Your task to perform on an android device: Open settings on Google Maps Image 0: 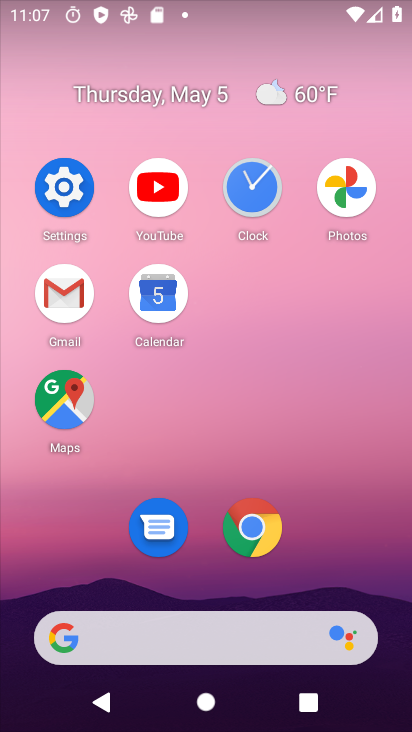
Step 0: click (54, 420)
Your task to perform on an android device: Open settings on Google Maps Image 1: 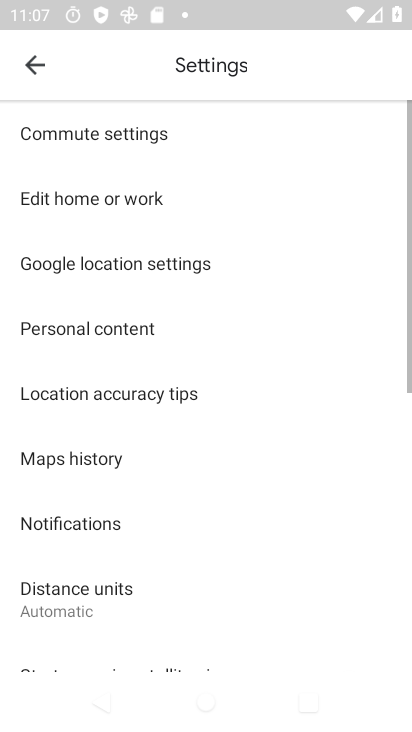
Step 1: task complete